Your task to perform on an android device: allow notifications from all sites in the chrome app Image 0: 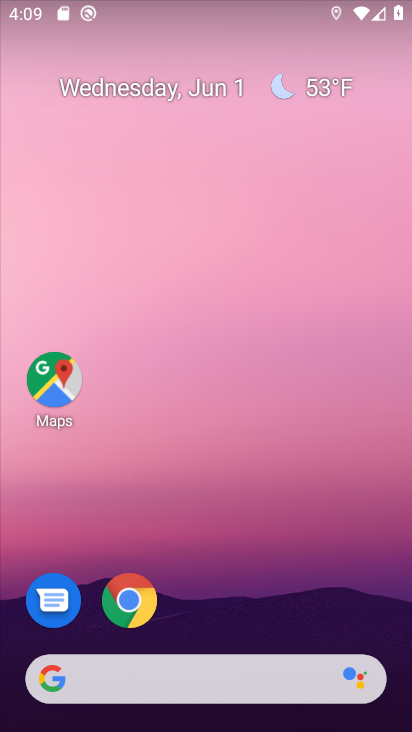
Step 0: drag from (213, 696) to (139, 116)
Your task to perform on an android device: allow notifications from all sites in the chrome app Image 1: 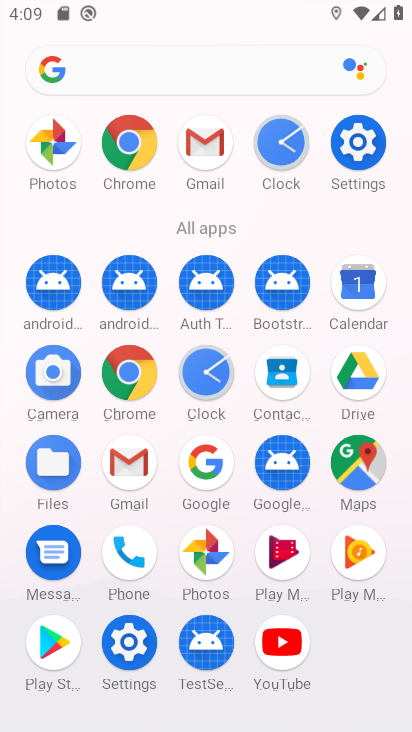
Step 1: click (125, 151)
Your task to perform on an android device: allow notifications from all sites in the chrome app Image 2: 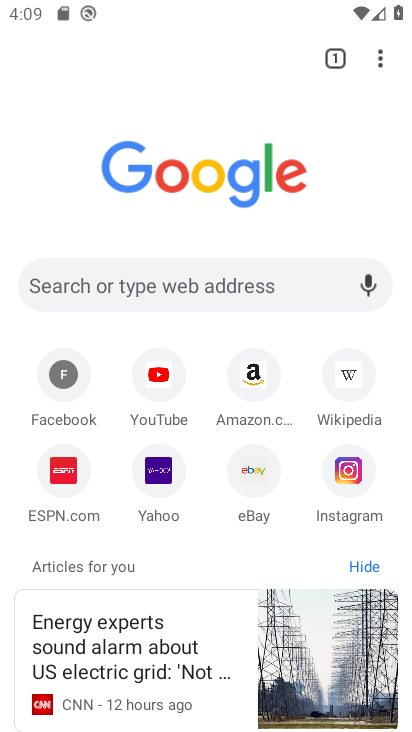
Step 2: press back button
Your task to perform on an android device: allow notifications from all sites in the chrome app Image 3: 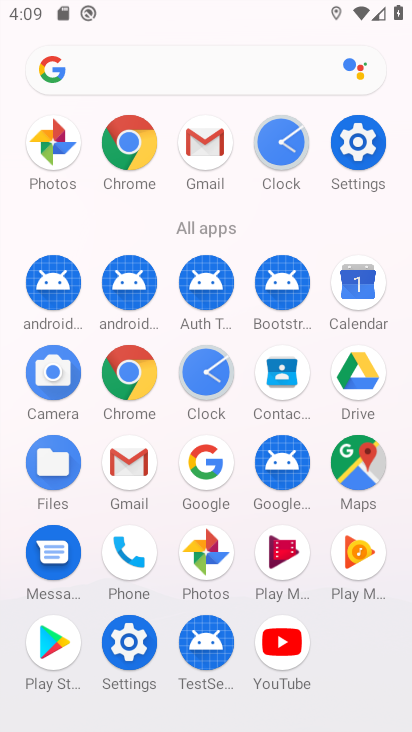
Step 3: click (122, 155)
Your task to perform on an android device: allow notifications from all sites in the chrome app Image 4: 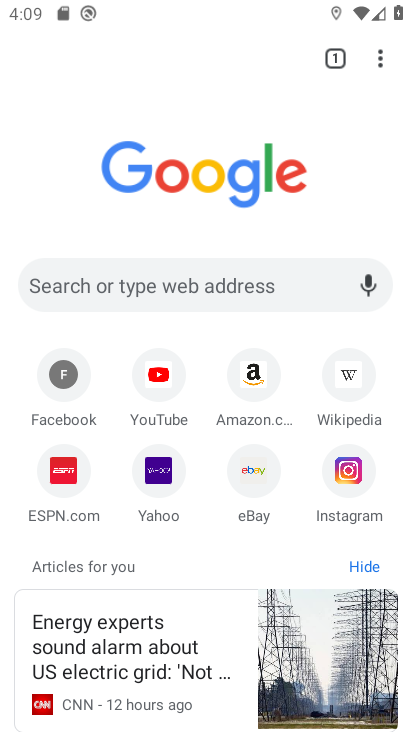
Step 4: click (132, 140)
Your task to perform on an android device: allow notifications from all sites in the chrome app Image 5: 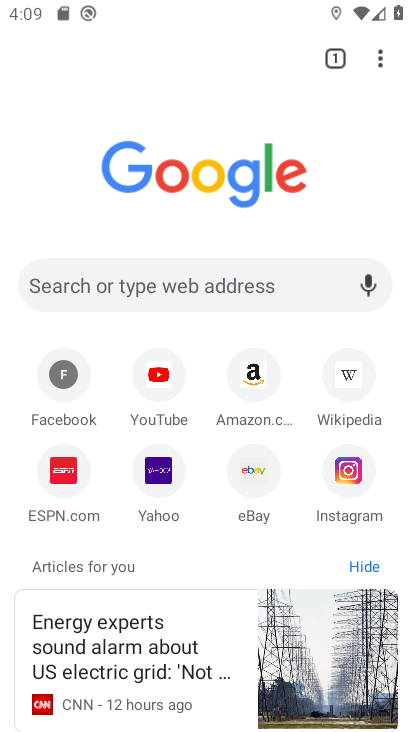
Step 5: drag from (379, 63) to (165, 483)
Your task to perform on an android device: allow notifications from all sites in the chrome app Image 6: 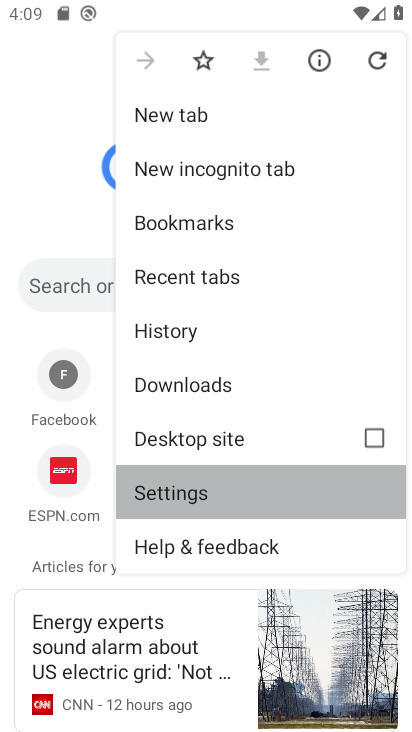
Step 6: click (165, 483)
Your task to perform on an android device: allow notifications from all sites in the chrome app Image 7: 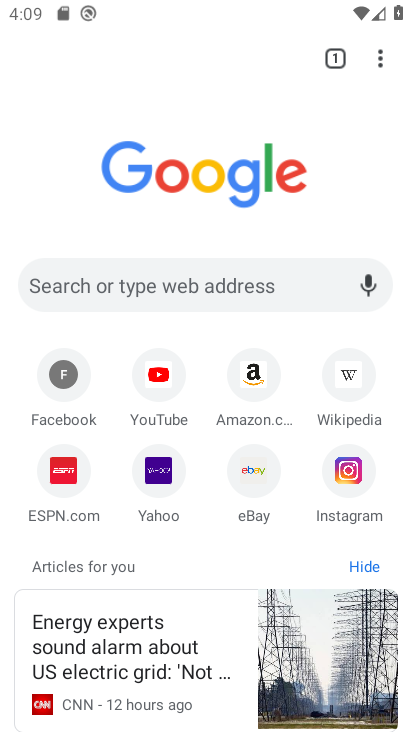
Step 7: click (165, 483)
Your task to perform on an android device: allow notifications from all sites in the chrome app Image 8: 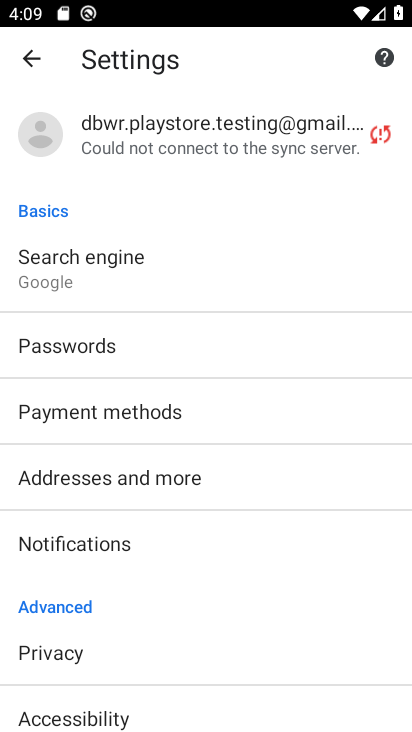
Step 8: drag from (86, 576) to (117, 200)
Your task to perform on an android device: allow notifications from all sites in the chrome app Image 9: 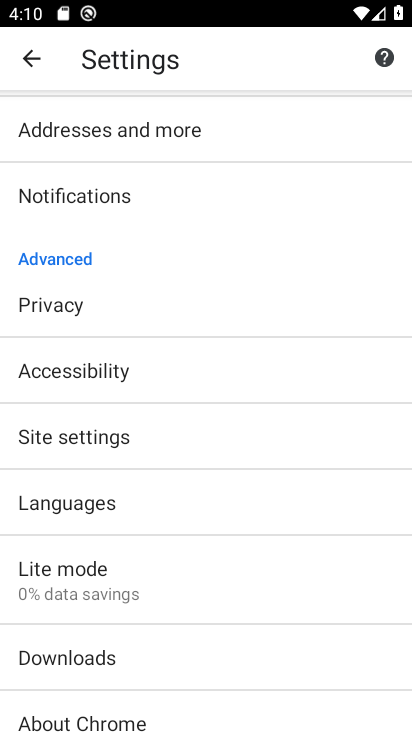
Step 9: click (66, 442)
Your task to perform on an android device: allow notifications from all sites in the chrome app Image 10: 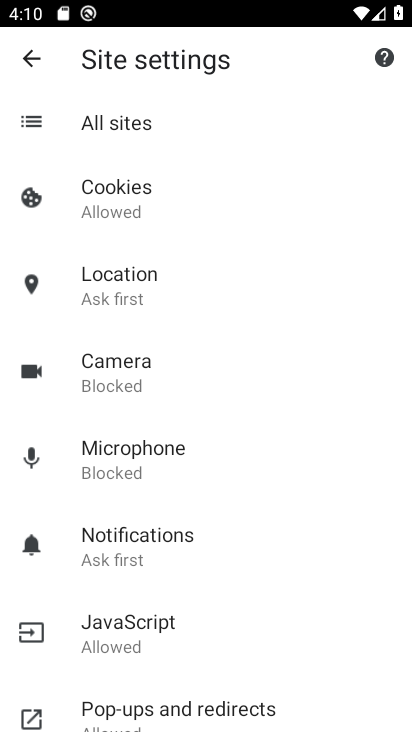
Step 10: drag from (122, 478) to (122, 206)
Your task to perform on an android device: allow notifications from all sites in the chrome app Image 11: 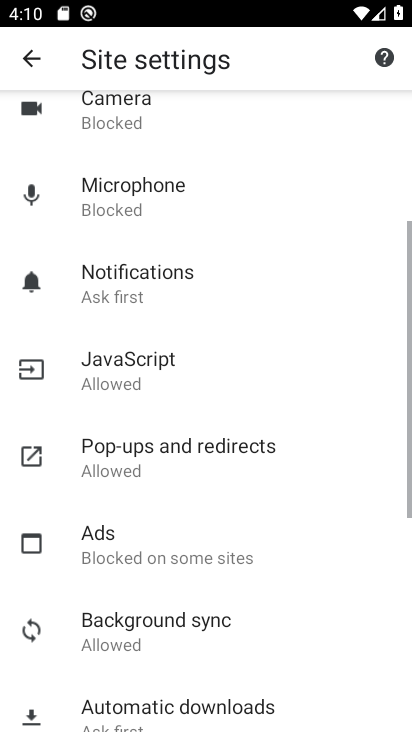
Step 11: drag from (88, 555) to (111, 216)
Your task to perform on an android device: allow notifications from all sites in the chrome app Image 12: 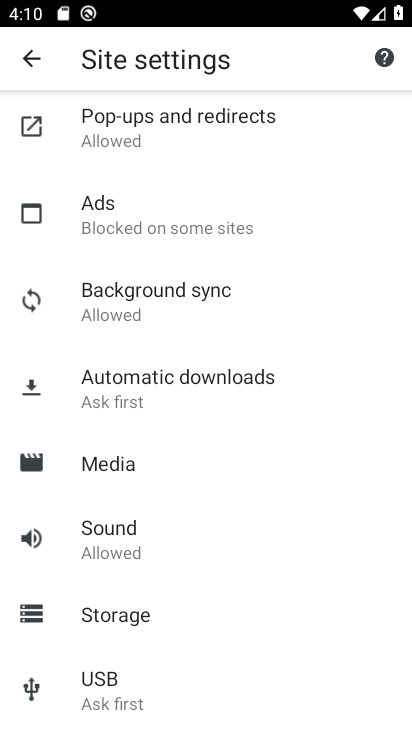
Step 12: drag from (111, 240) to (110, 400)
Your task to perform on an android device: allow notifications from all sites in the chrome app Image 13: 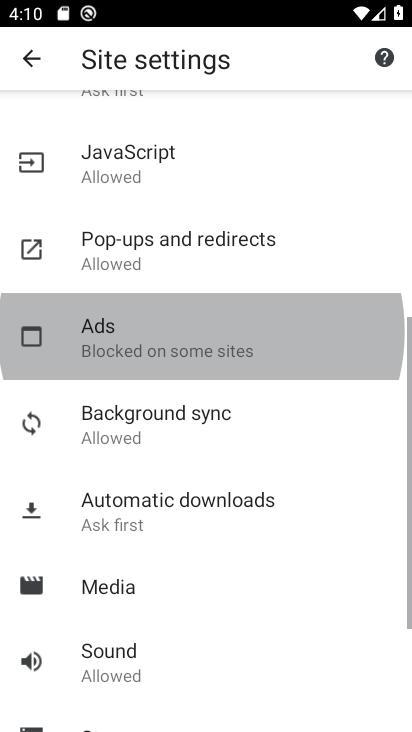
Step 13: drag from (86, 227) to (121, 460)
Your task to perform on an android device: allow notifications from all sites in the chrome app Image 14: 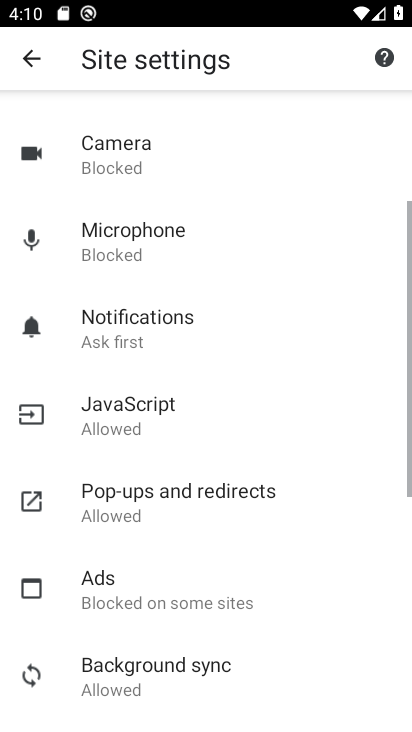
Step 14: drag from (124, 222) to (167, 528)
Your task to perform on an android device: allow notifications from all sites in the chrome app Image 15: 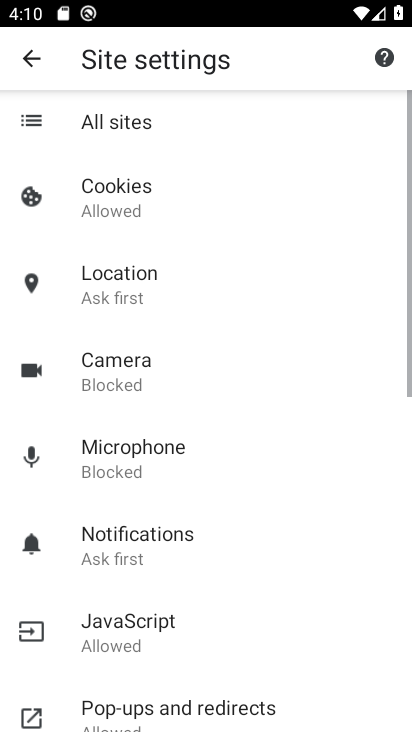
Step 15: drag from (147, 277) to (160, 497)
Your task to perform on an android device: allow notifications from all sites in the chrome app Image 16: 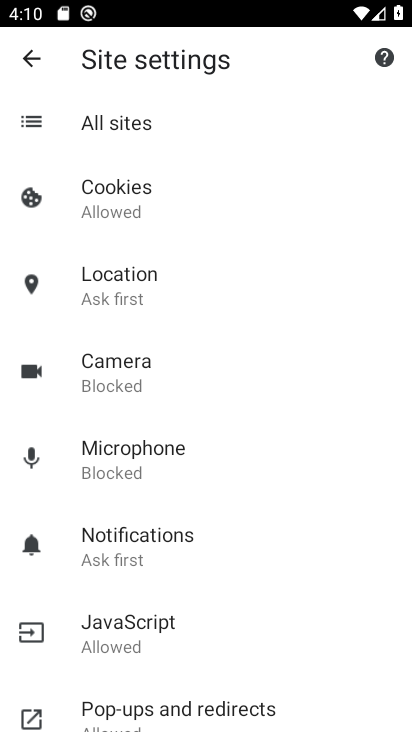
Step 16: click (114, 124)
Your task to perform on an android device: allow notifications from all sites in the chrome app Image 17: 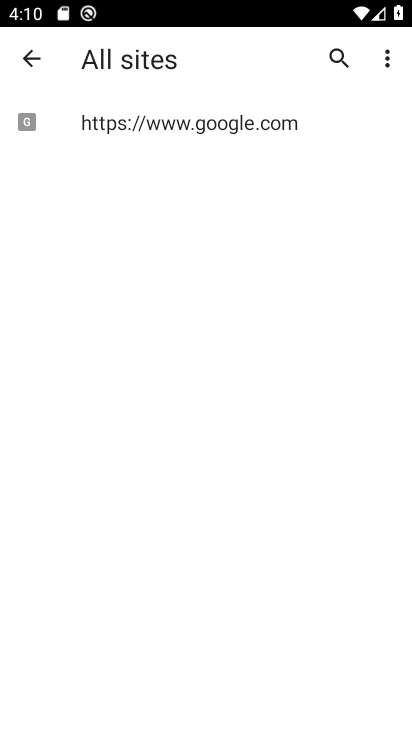
Step 17: click (176, 124)
Your task to perform on an android device: allow notifications from all sites in the chrome app Image 18: 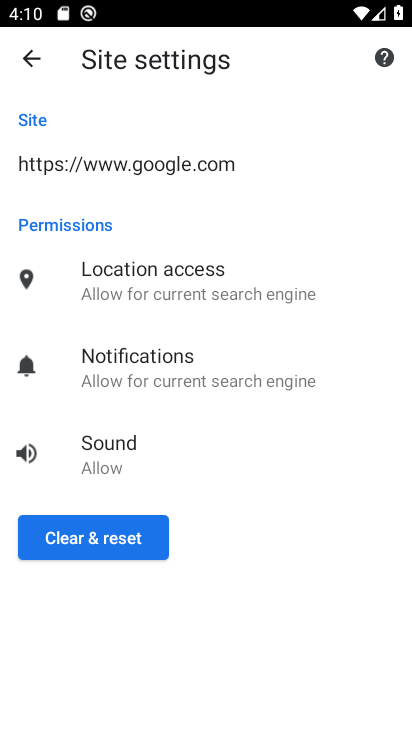
Step 18: click (116, 362)
Your task to perform on an android device: allow notifications from all sites in the chrome app Image 19: 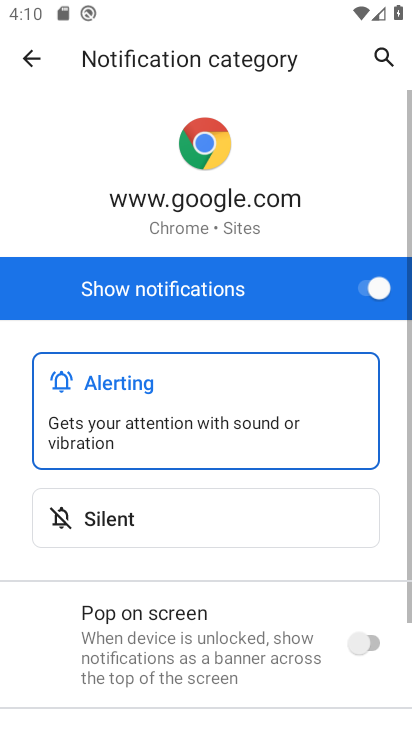
Step 19: click (22, 163)
Your task to perform on an android device: allow notifications from all sites in the chrome app Image 20: 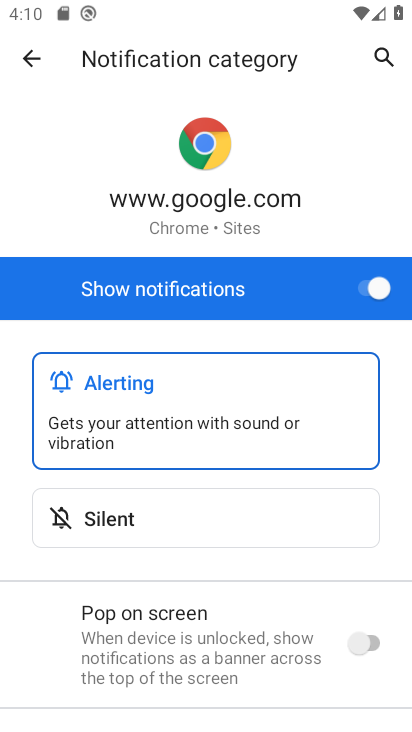
Step 20: task complete